Your task to perform on an android device: Open the map Image 0: 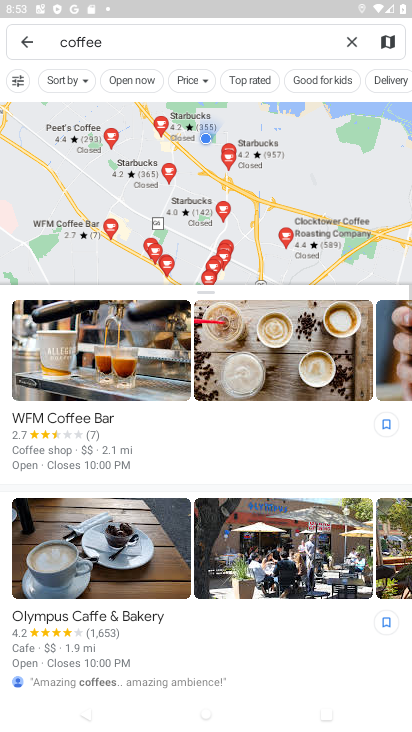
Step 0: click (348, 34)
Your task to perform on an android device: Open the map Image 1: 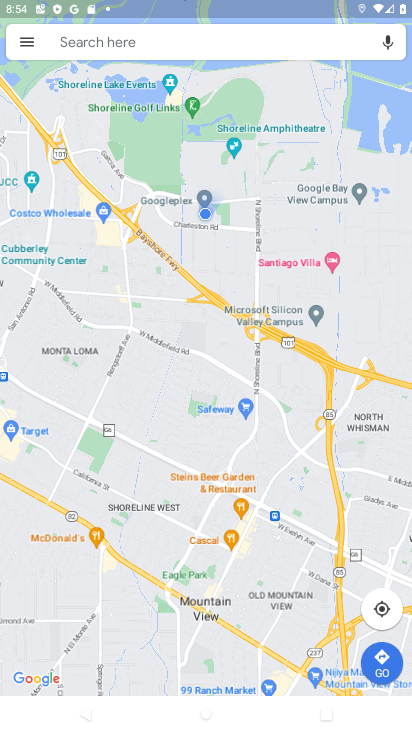
Step 1: task complete